Your task to perform on an android device: Search for vegetarian restaurants on Maps Image 0: 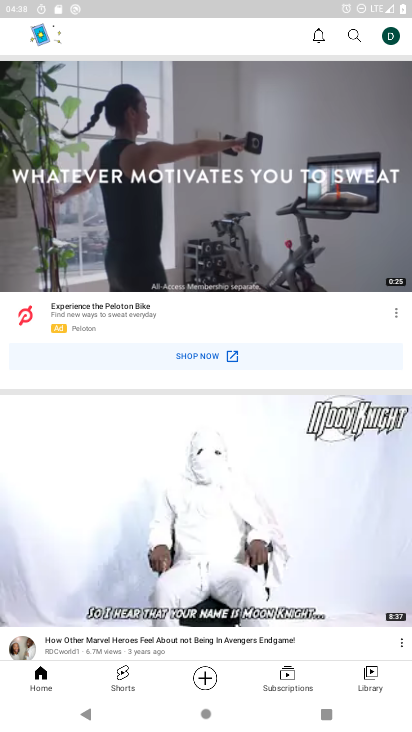
Step 0: press home button
Your task to perform on an android device: Search for vegetarian restaurants on Maps Image 1: 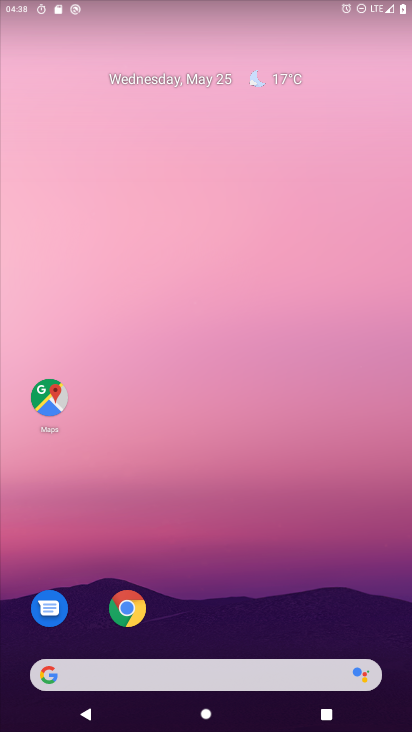
Step 1: click (56, 395)
Your task to perform on an android device: Search for vegetarian restaurants on Maps Image 2: 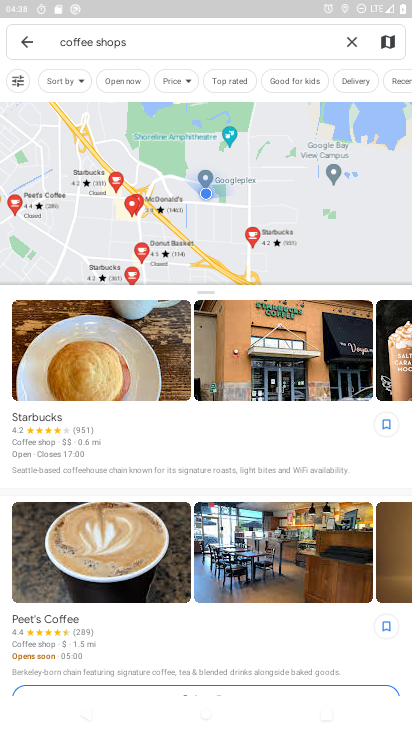
Step 2: click (158, 48)
Your task to perform on an android device: Search for vegetarian restaurants on Maps Image 3: 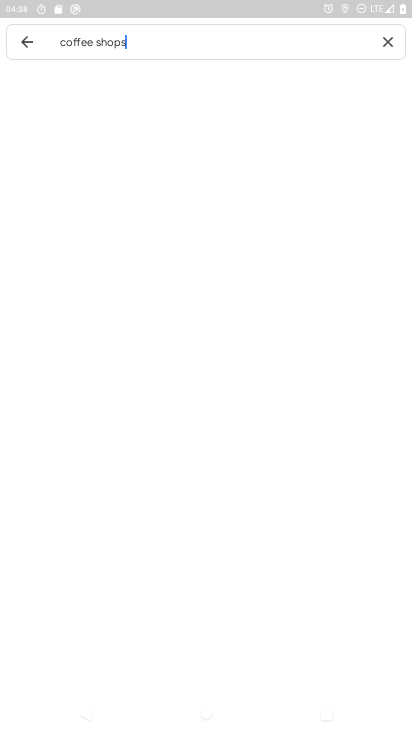
Step 3: click (387, 42)
Your task to perform on an android device: Search for vegetarian restaurants on Maps Image 4: 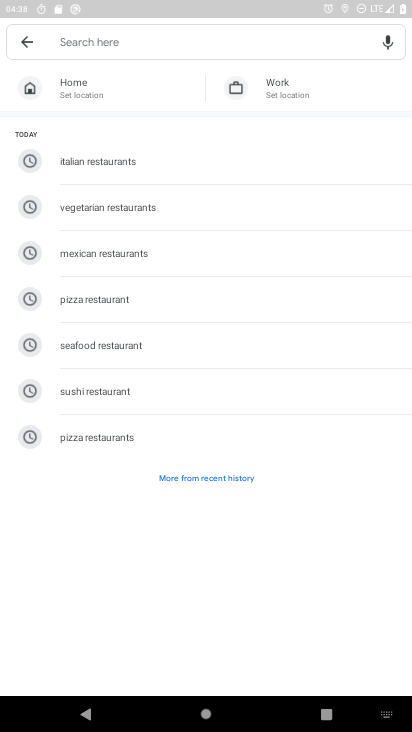
Step 4: click (177, 208)
Your task to perform on an android device: Search for vegetarian restaurants on Maps Image 5: 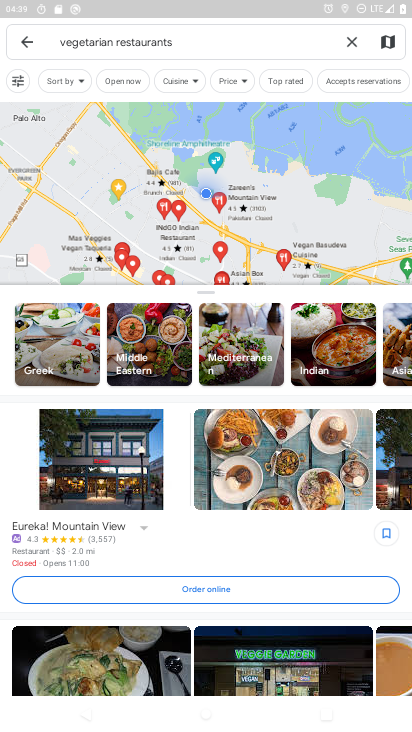
Step 5: task complete